Your task to perform on an android device: Set the phone to "Do not disturb". Image 0: 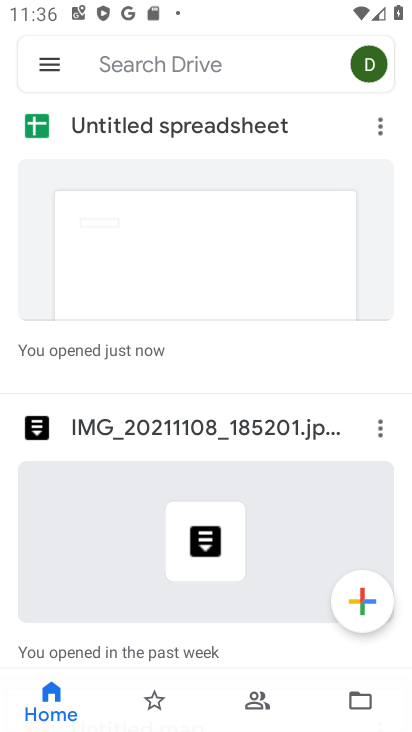
Step 0: press home button
Your task to perform on an android device: Set the phone to "Do not disturb". Image 1: 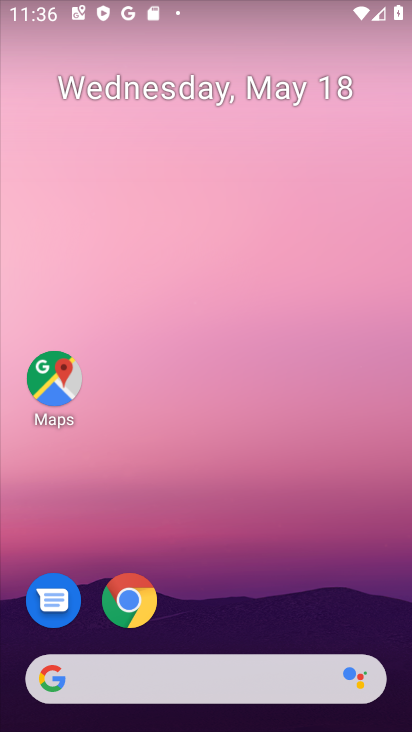
Step 1: drag from (205, 579) to (186, 9)
Your task to perform on an android device: Set the phone to "Do not disturb". Image 2: 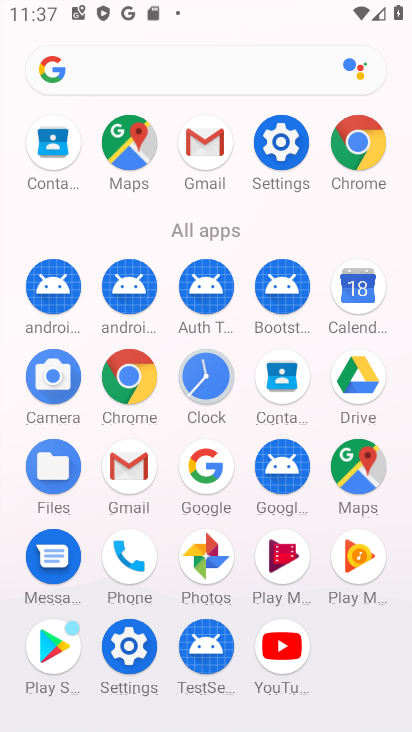
Step 2: click (127, 658)
Your task to perform on an android device: Set the phone to "Do not disturb". Image 3: 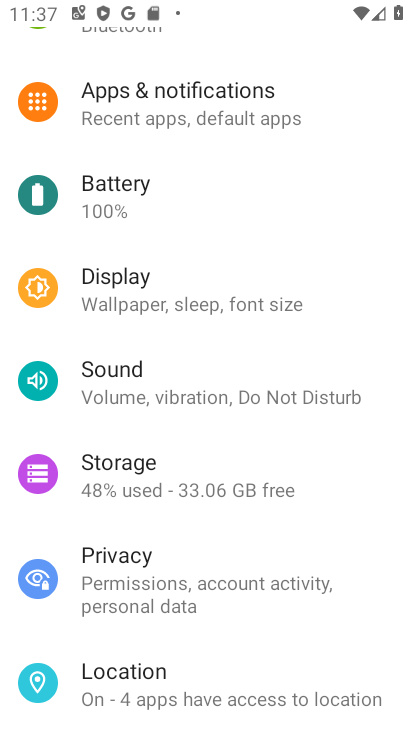
Step 3: click (154, 399)
Your task to perform on an android device: Set the phone to "Do not disturb". Image 4: 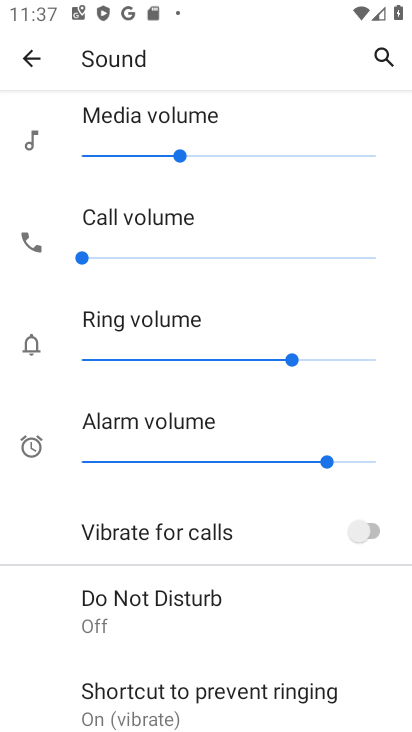
Step 4: click (165, 625)
Your task to perform on an android device: Set the phone to "Do not disturb". Image 5: 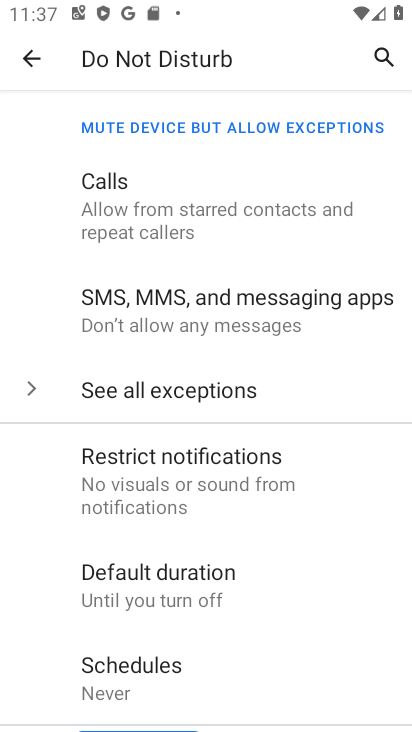
Step 5: drag from (162, 587) to (201, 237)
Your task to perform on an android device: Set the phone to "Do not disturb". Image 6: 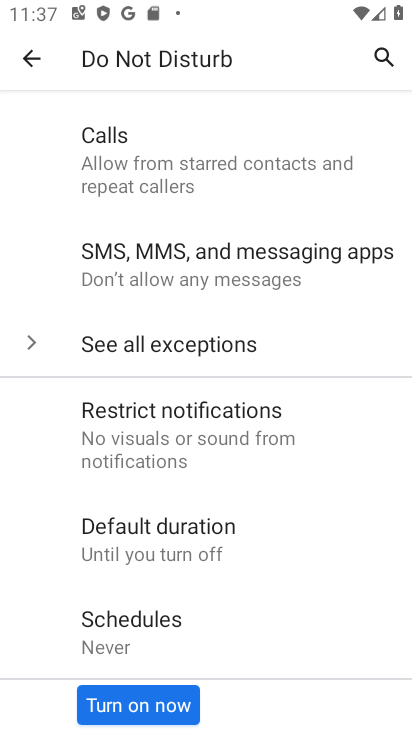
Step 6: click (158, 709)
Your task to perform on an android device: Set the phone to "Do not disturb". Image 7: 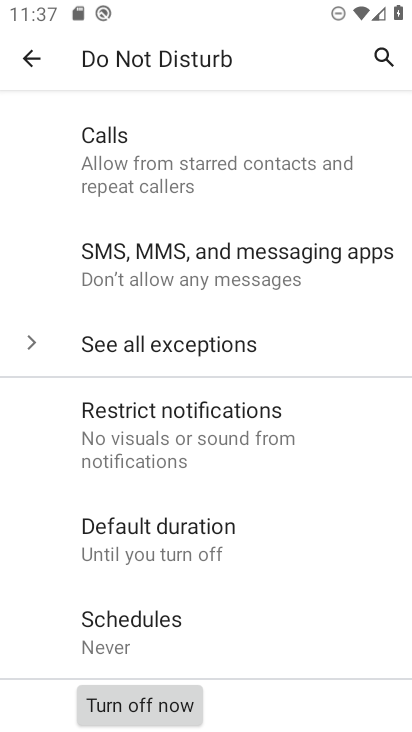
Step 7: task complete